Your task to perform on an android device: Open the calendar app, open the side menu, and click the "Day" option Image 0: 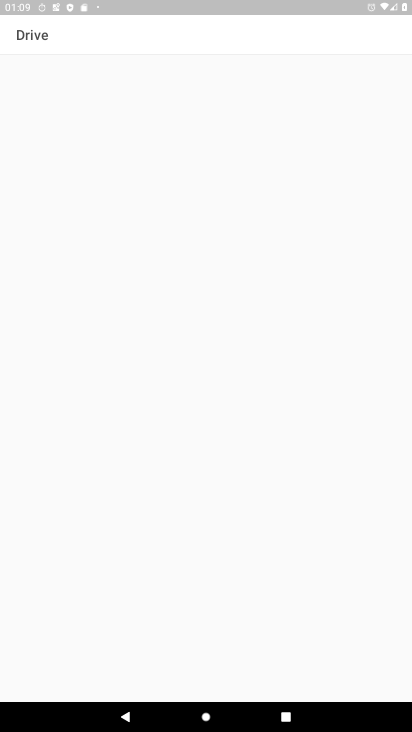
Step 0: press home button
Your task to perform on an android device: Open the calendar app, open the side menu, and click the "Day" option Image 1: 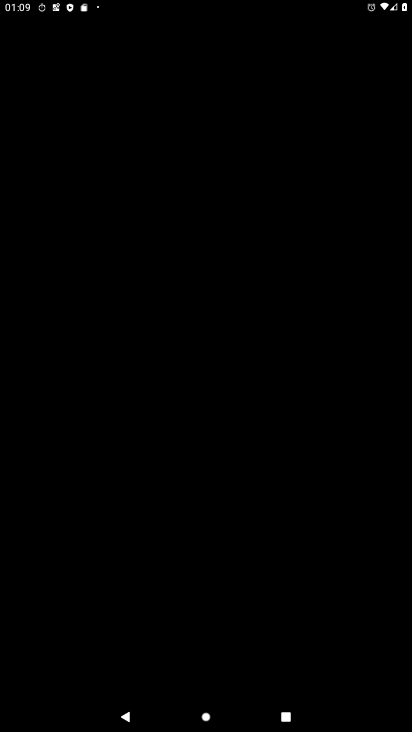
Step 1: press home button
Your task to perform on an android device: Open the calendar app, open the side menu, and click the "Day" option Image 2: 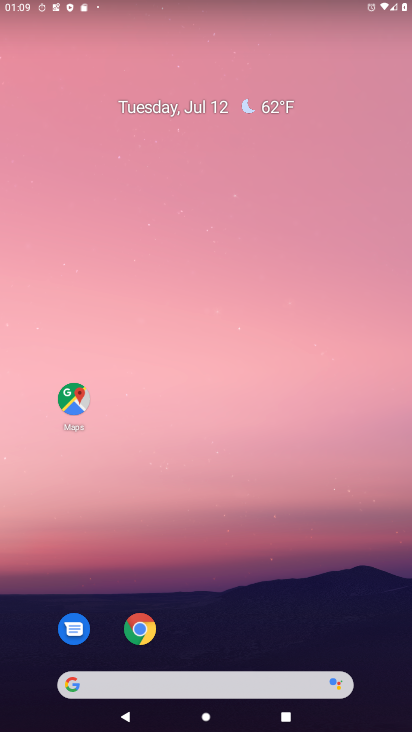
Step 2: drag from (402, 710) to (237, 90)
Your task to perform on an android device: Open the calendar app, open the side menu, and click the "Day" option Image 3: 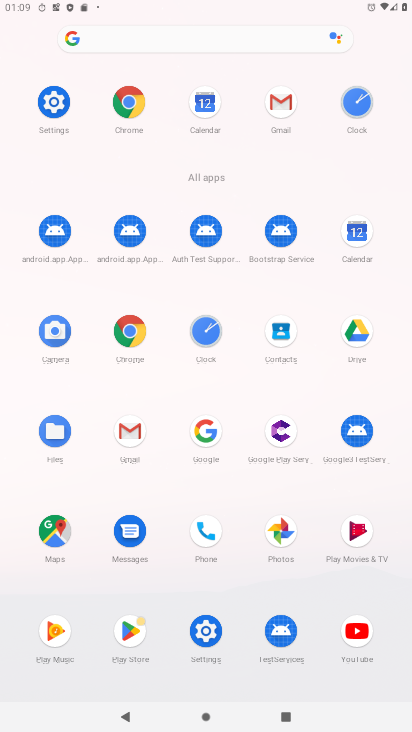
Step 3: click (341, 236)
Your task to perform on an android device: Open the calendar app, open the side menu, and click the "Day" option Image 4: 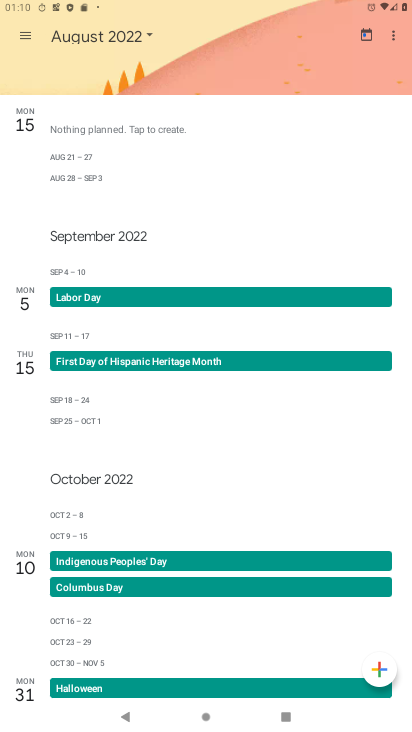
Step 4: click (15, 41)
Your task to perform on an android device: Open the calendar app, open the side menu, and click the "Day" option Image 5: 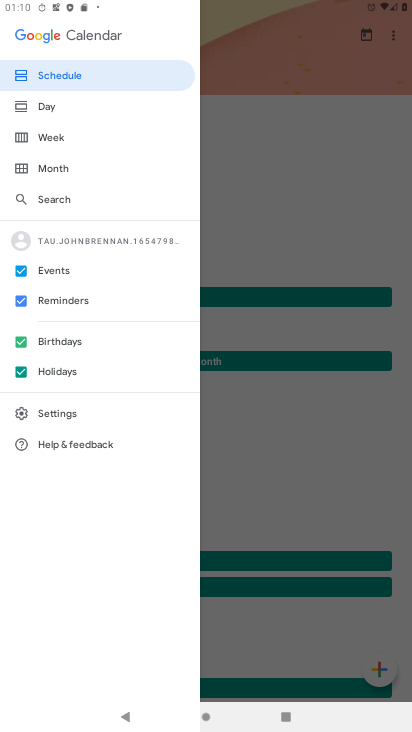
Step 5: click (20, 110)
Your task to perform on an android device: Open the calendar app, open the side menu, and click the "Day" option Image 6: 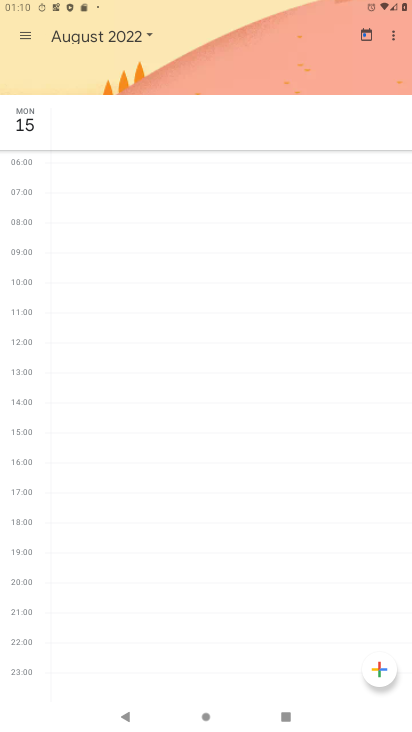
Step 6: task complete